Your task to perform on an android device: toggle translation in the chrome app Image 0: 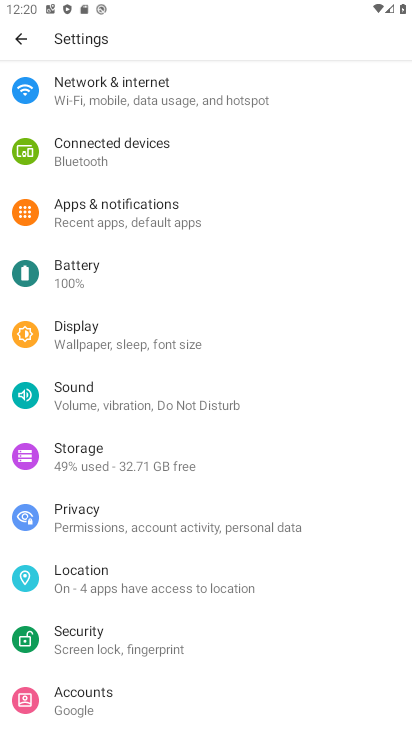
Step 0: press home button
Your task to perform on an android device: toggle translation in the chrome app Image 1: 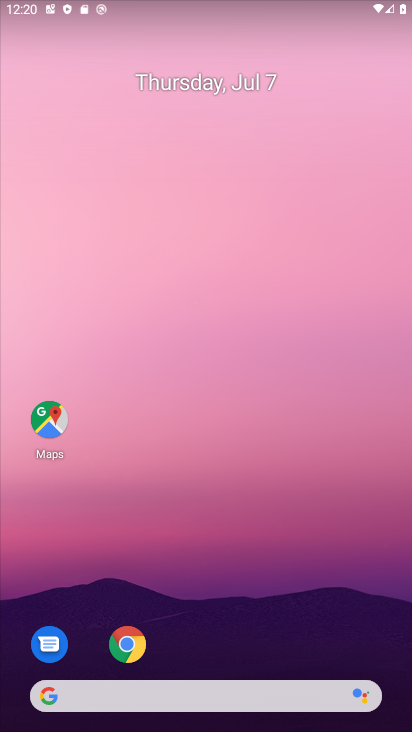
Step 1: drag from (265, 653) to (253, 41)
Your task to perform on an android device: toggle translation in the chrome app Image 2: 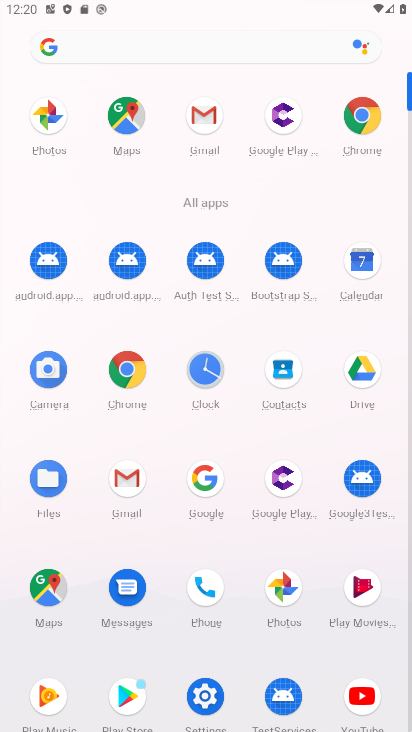
Step 2: click (351, 128)
Your task to perform on an android device: toggle translation in the chrome app Image 3: 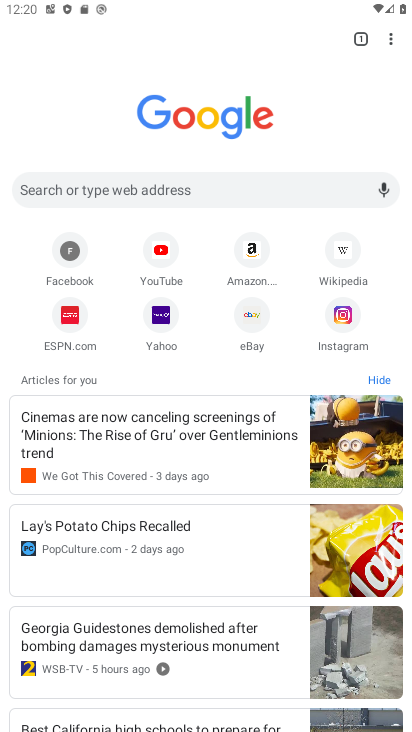
Step 3: drag from (389, 33) to (288, 329)
Your task to perform on an android device: toggle translation in the chrome app Image 4: 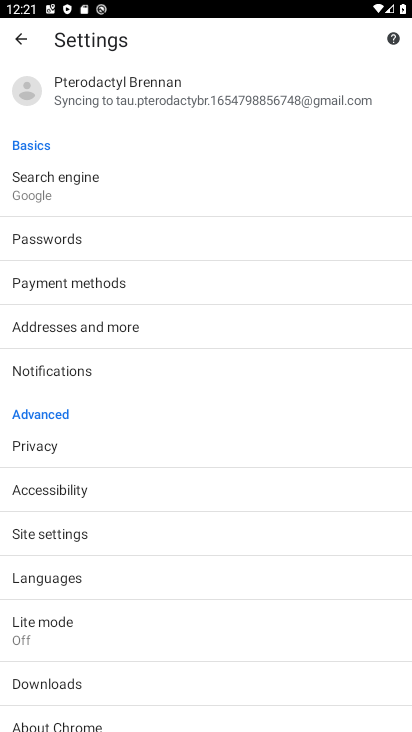
Step 4: drag from (158, 620) to (173, 270)
Your task to perform on an android device: toggle translation in the chrome app Image 5: 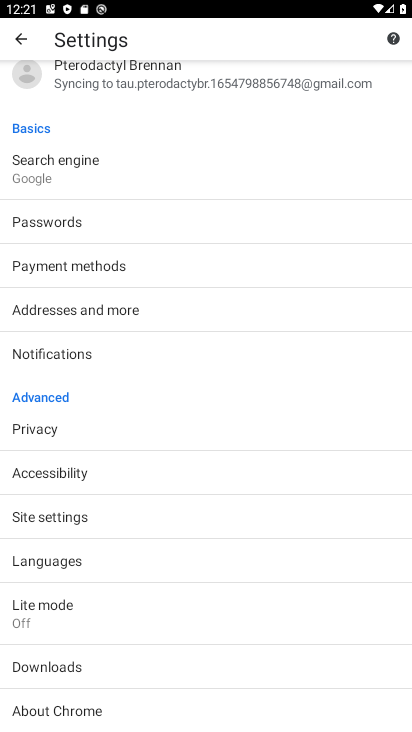
Step 5: click (42, 549)
Your task to perform on an android device: toggle translation in the chrome app Image 6: 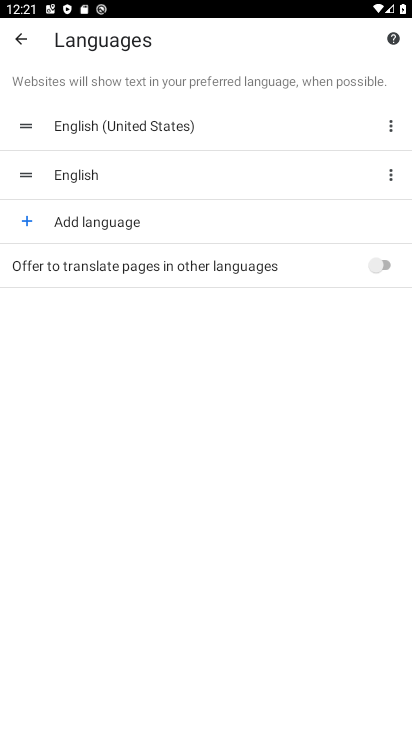
Step 6: click (376, 263)
Your task to perform on an android device: toggle translation in the chrome app Image 7: 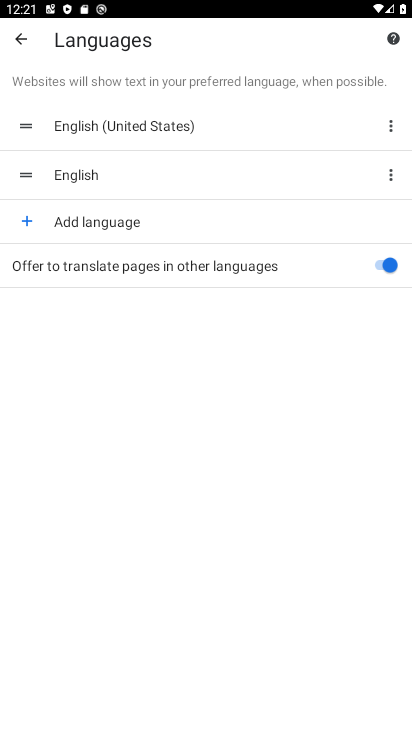
Step 7: task complete